Your task to perform on an android device: see tabs open on other devices in the chrome app Image 0: 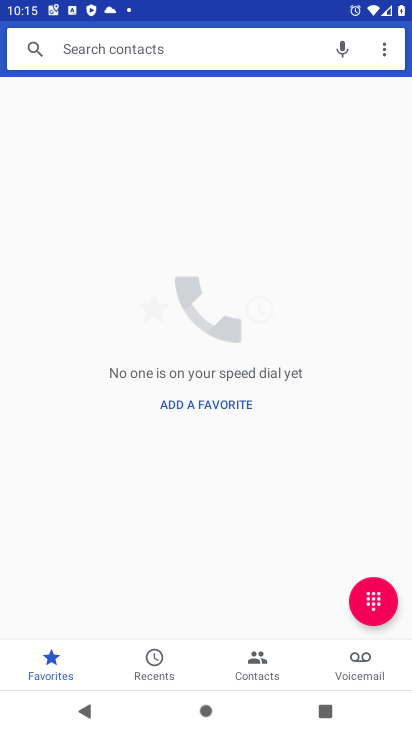
Step 0: press home button
Your task to perform on an android device: see tabs open on other devices in the chrome app Image 1: 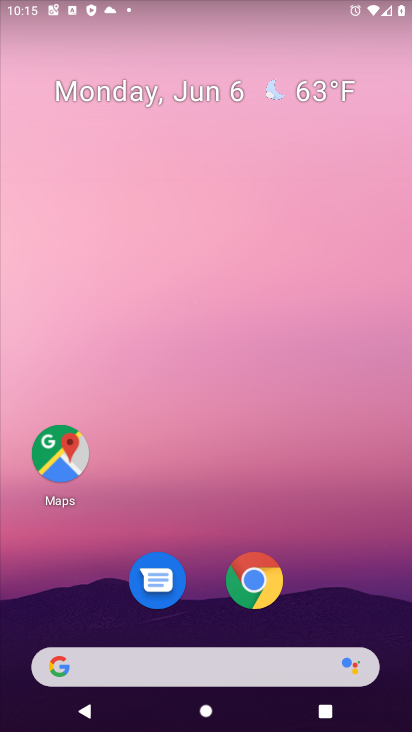
Step 1: drag from (351, 602) to (106, 27)
Your task to perform on an android device: see tabs open on other devices in the chrome app Image 2: 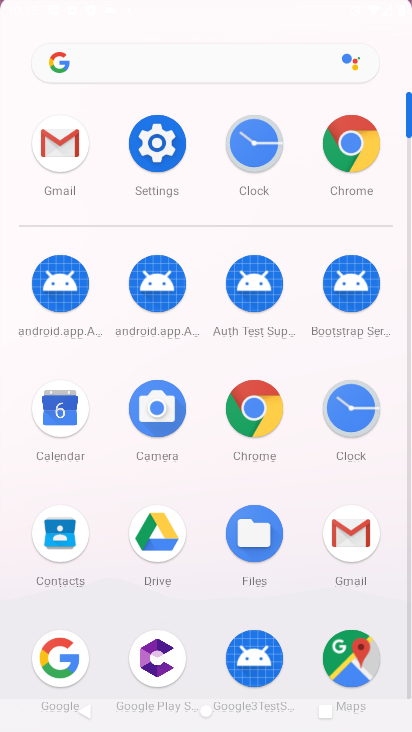
Step 2: click (351, 164)
Your task to perform on an android device: see tabs open on other devices in the chrome app Image 3: 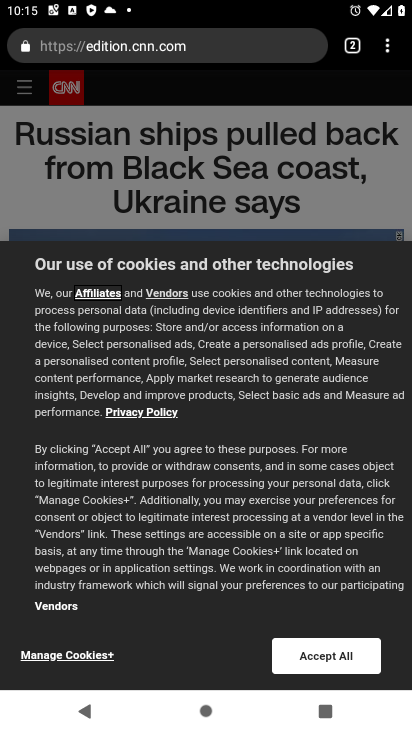
Step 3: drag from (400, 57) to (258, 209)
Your task to perform on an android device: see tabs open on other devices in the chrome app Image 4: 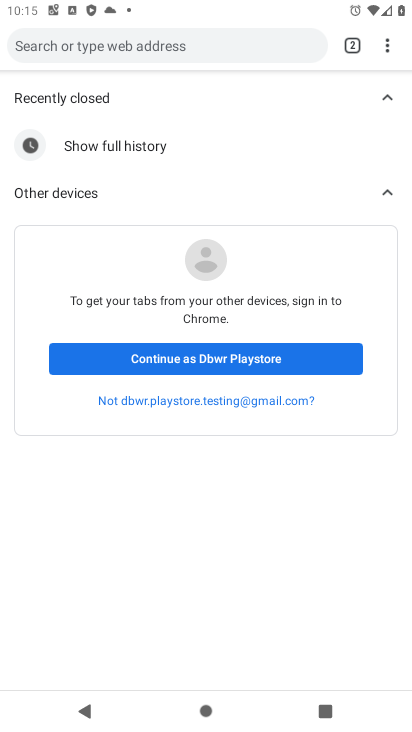
Step 4: click (260, 363)
Your task to perform on an android device: see tabs open on other devices in the chrome app Image 5: 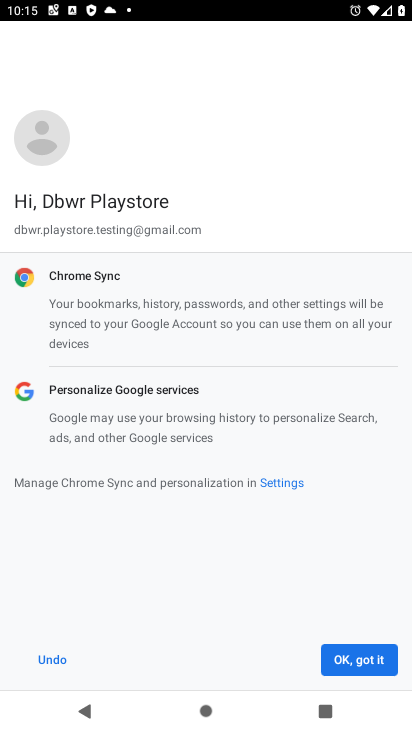
Step 5: click (380, 660)
Your task to perform on an android device: see tabs open on other devices in the chrome app Image 6: 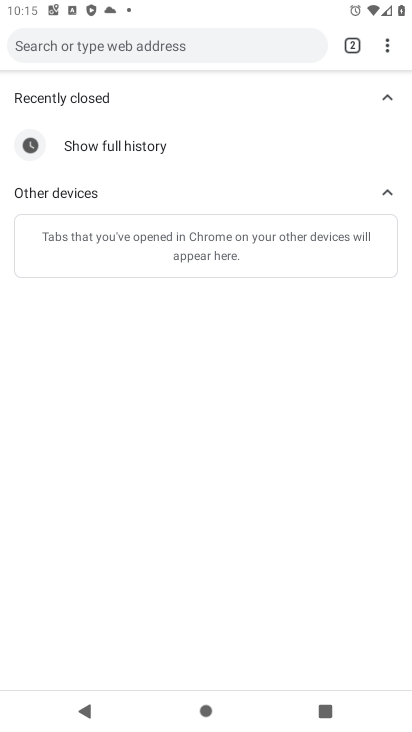
Step 6: task complete